Your task to perform on an android device: When is my next appointment? Image 0: 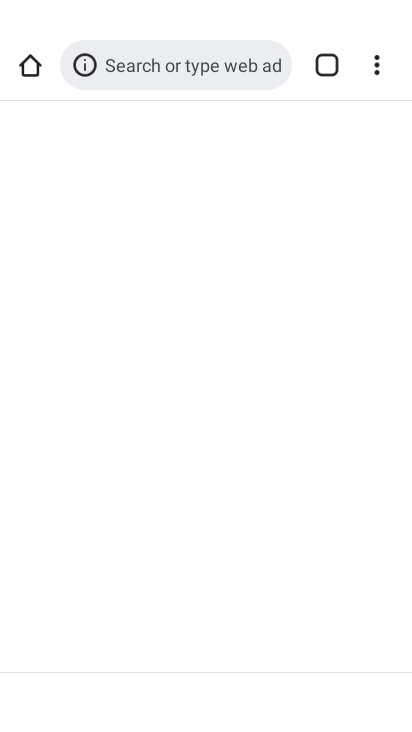
Step 0: press home button
Your task to perform on an android device: When is my next appointment? Image 1: 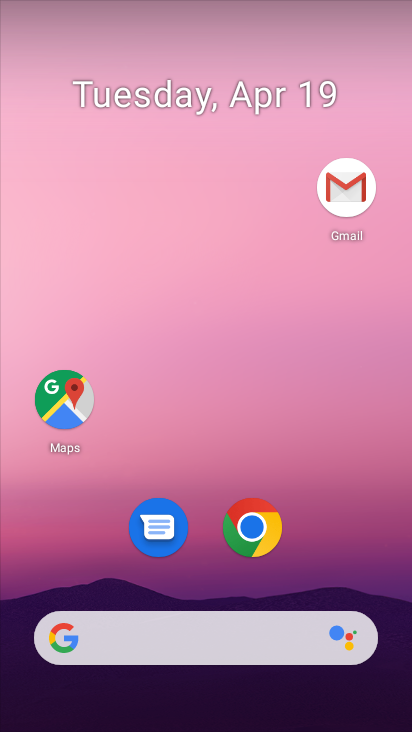
Step 1: drag from (338, 539) to (338, 49)
Your task to perform on an android device: When is my next appointment? Image 2: 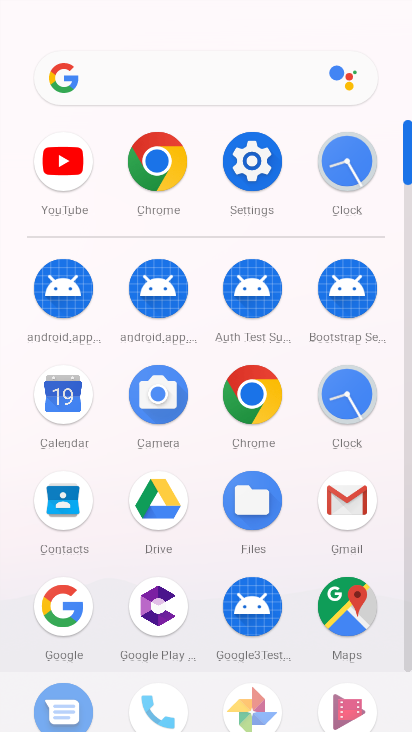
Step 2: click (75, 404)
Your task to perform on an android device: When is my next appointment? Image 3: 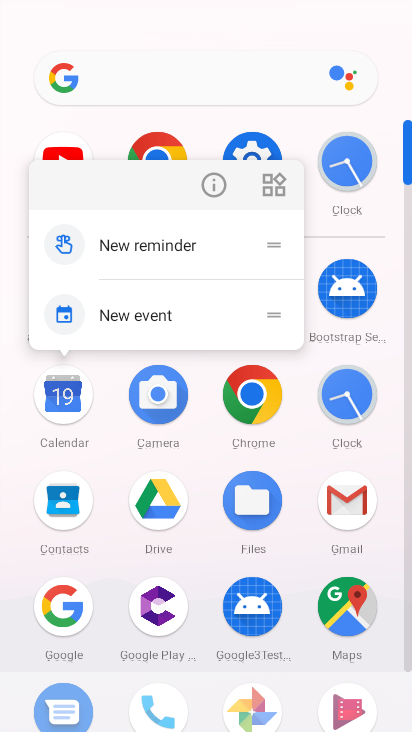
Step 3: click (68, 408)
Your task to perform on an android device: When is my next appointment? Image 4: 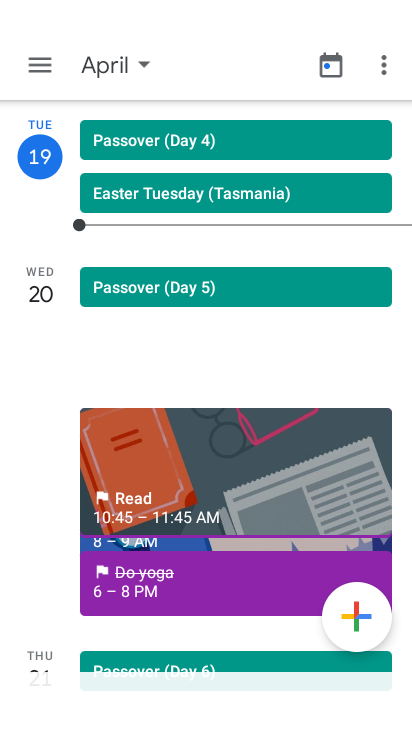
Step 4: drag from (39, 422) to (40, 260)
Your task to perform on an android device: When is my next appointment? Image 5: 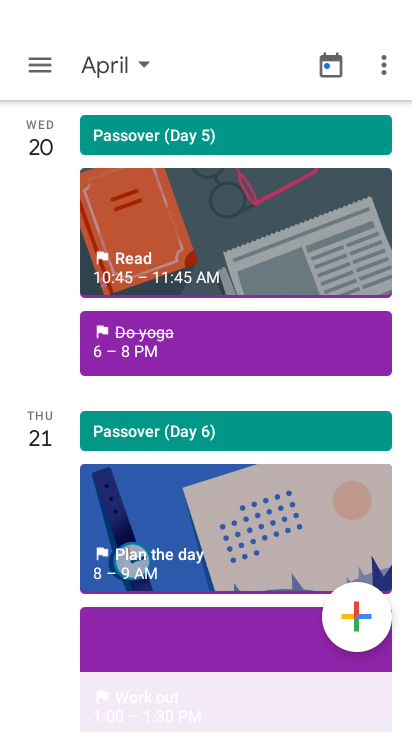
Step 5: drag from (36, 629) to (33, 272)
Your task to perform on an android device: When is my next appointment? Image 6: 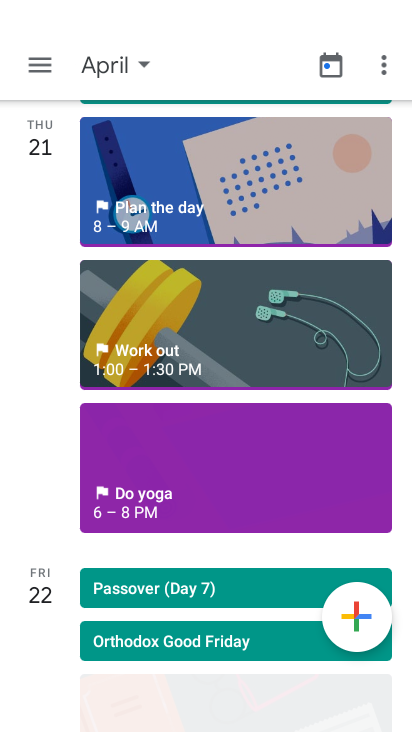
Step 6: drag from (53, 627) to (48, 312)
Your task to perform on an android device: When is my next appointment? Image 7: 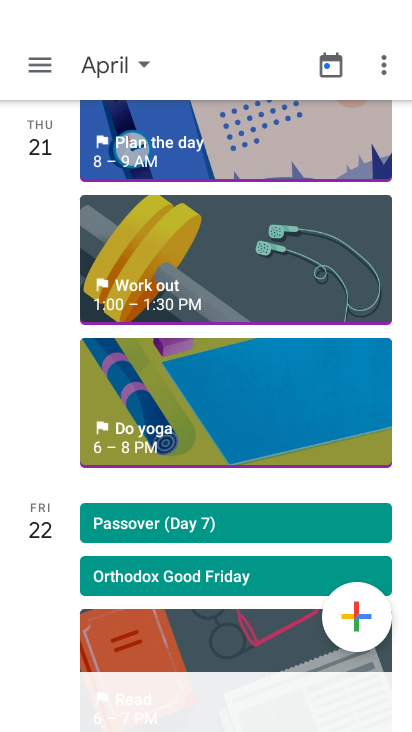
Step 7: drag from (34, 405) to (34, 315)
Your task to perform on an android device: When is my next appointment? Image 8: 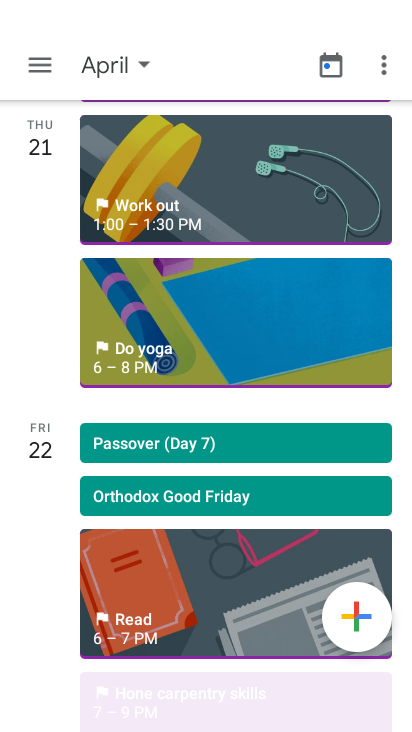
Step 8: click (54, 260)
Your task to perform on an android device: When is my next appointment? Image 9: 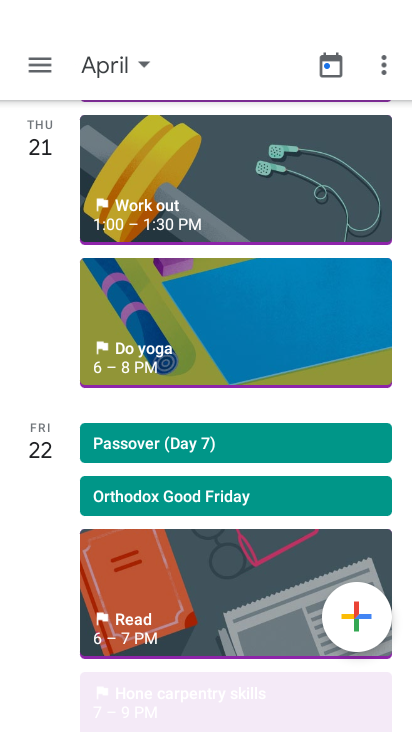
Step 9: task complete